Your task to perform on an android device: read, delete, or share a saved page in the chrome app Image 0: 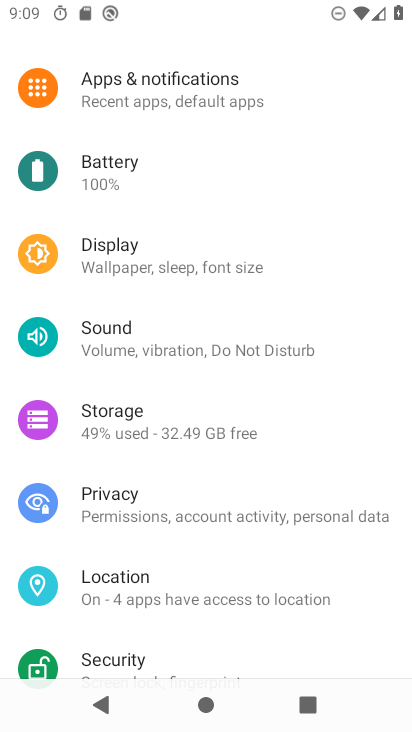
Step 0: press home button
Your task to perform on an android device: read, delete, or share a saved page in the chrome app Image 1: 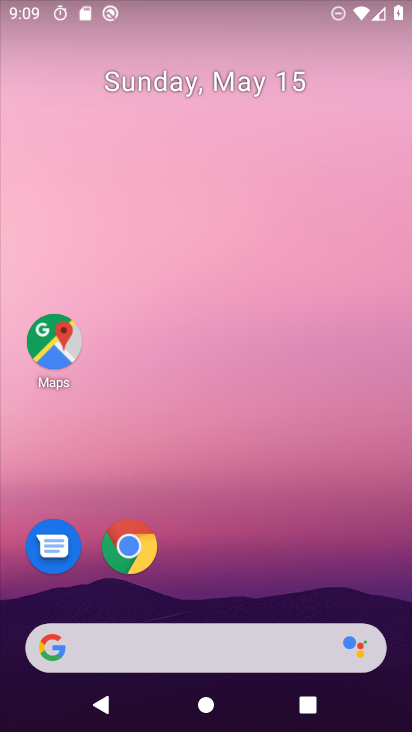
Step 1: click (137, 536)
Your task to perform on an android device: read, delete, or share a saved page in the chrome app Image 2: 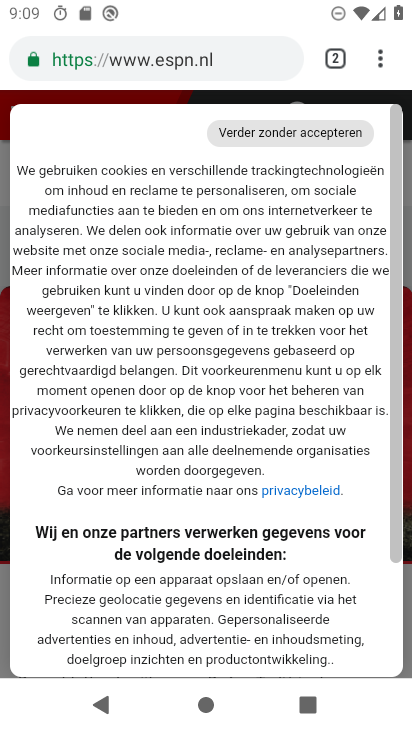
Step 2: click (378, 57)
Your task to perform on an android device: read, delete, or share a saved page in the chrome app Image 3: 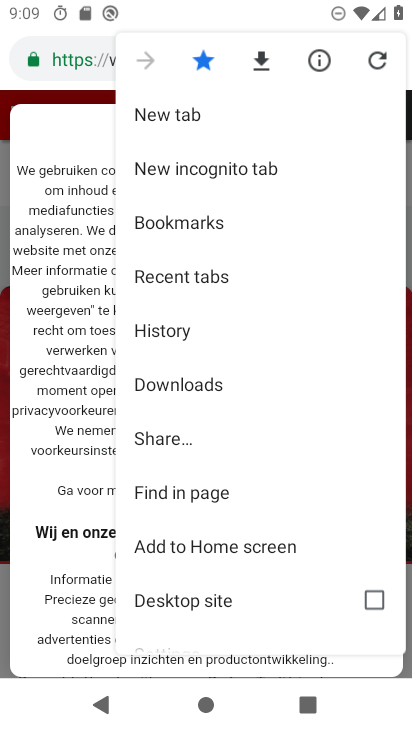
Step 3: click (215, 385)
Your task to perform on an android device: read, delete, or share a saved page in the chrome app Image 4: 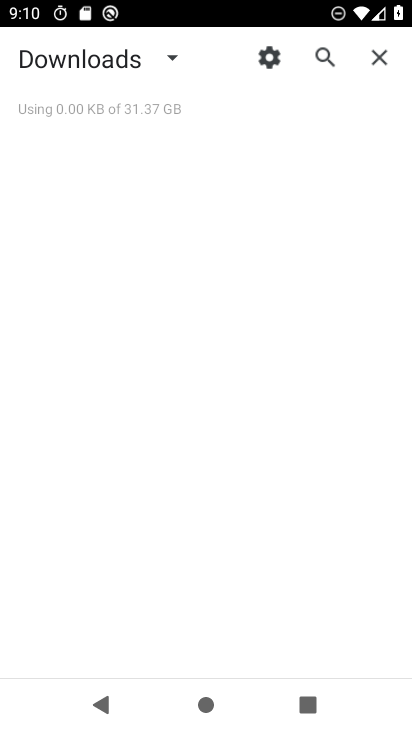
Step 4: task complete